Your task to perform on an android device: toggle sleep mode Image 0: 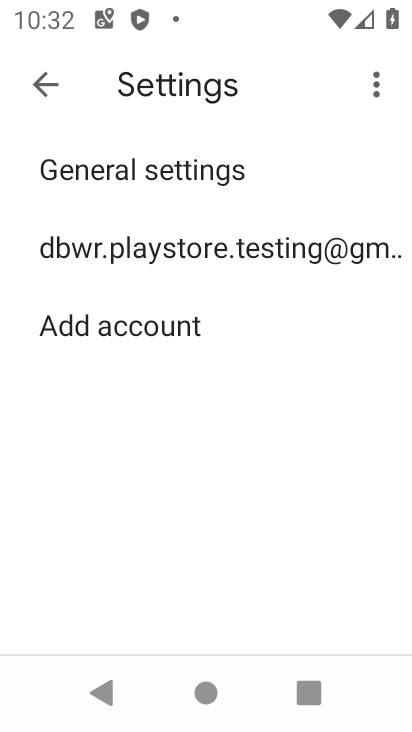
Step 0: press home button
Your task to perform on an android device: toggle sleep mode Image 1: 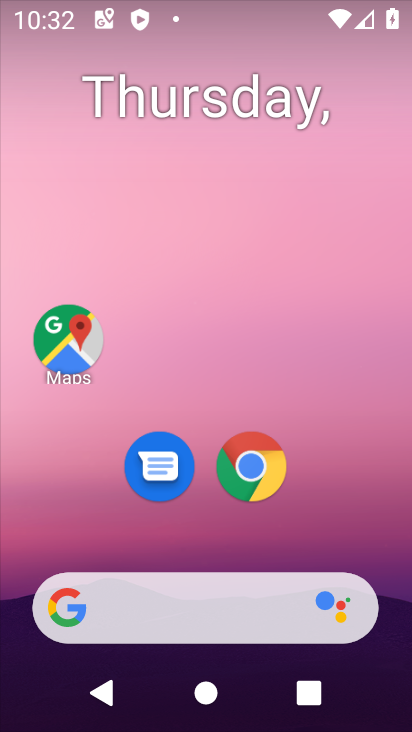
Step 1: drag from (188, 538) to (210, 120)
Your task to perform on an android device: toggle sleep mode Image 2: 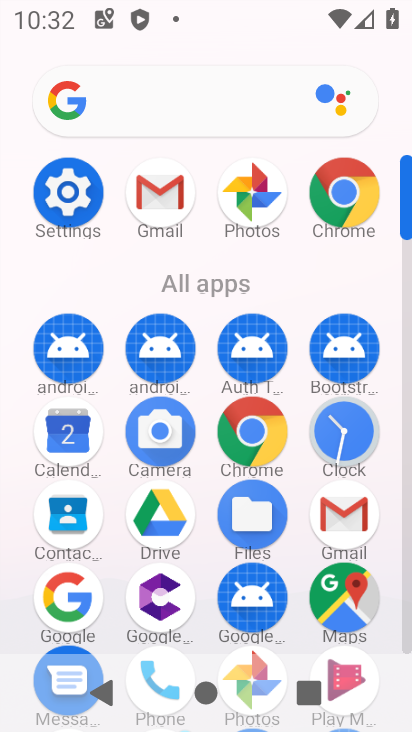
Step 2: click (76, 183)
Your task to perform on an android device: toggle sleep mode Image 3: 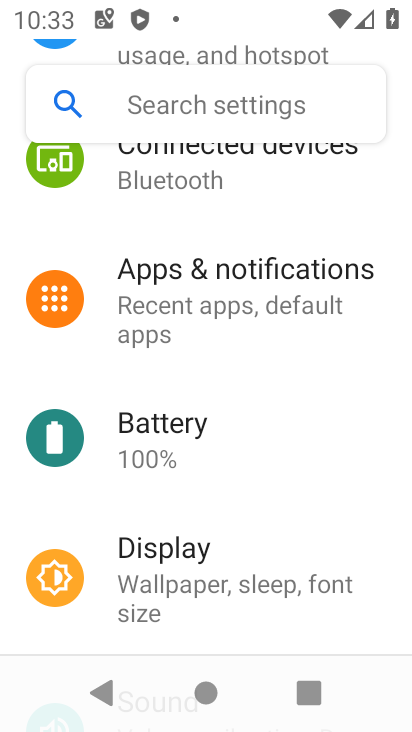
Step 3: click (218, 554)
Your task to perform on an android device: toggle sleep mode Image 4: 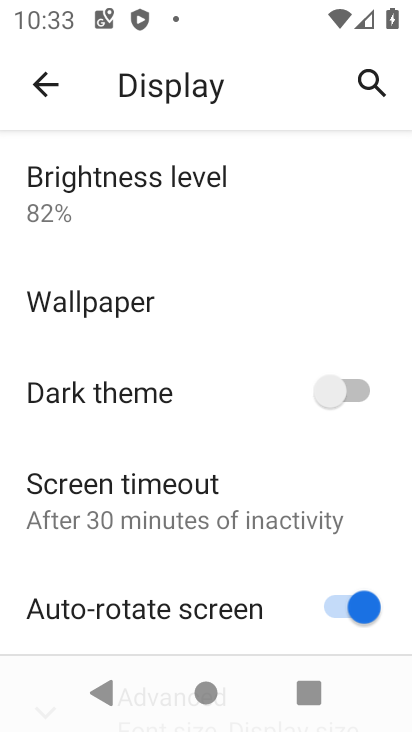
Step 4: click (163, 488)
Your task to perform on an android device: toggle sleep mode Image 5: 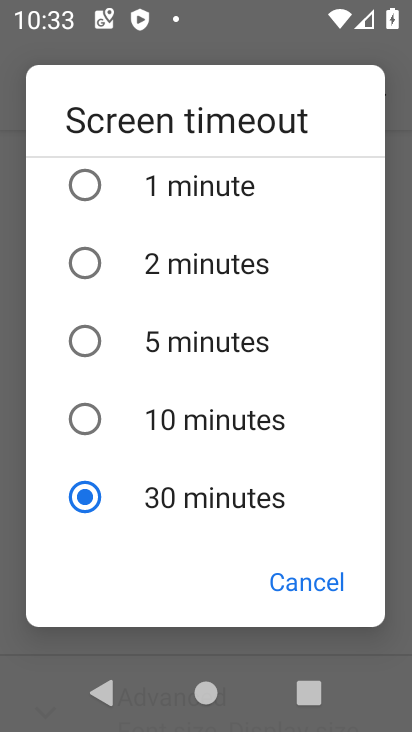
Step 5: click (192, 268)
Your task to perform on an android device: toggle sleep mode Image 6: 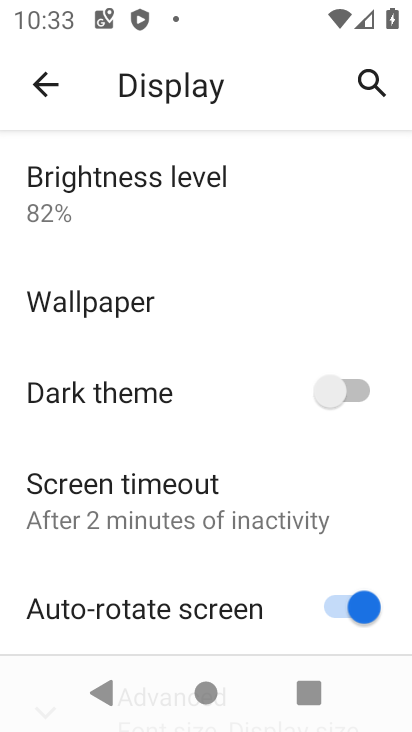
Step 6: task complete